Your task to perform on an android device: turn off notifications in google photos Image 0: 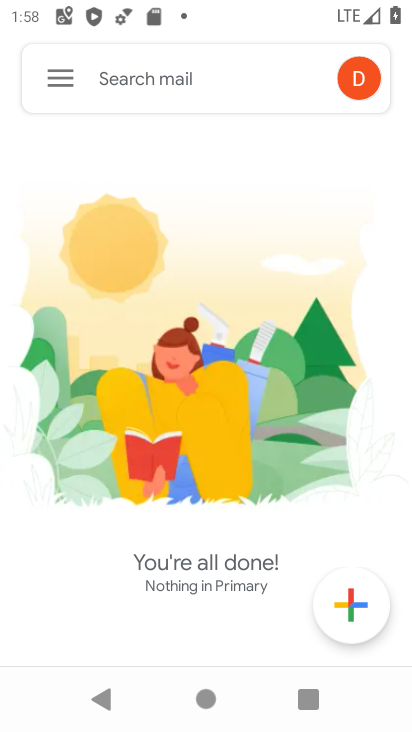
Step 0: press back button
Your task to perform on an android device: turn off notifications in google photos Image 1: 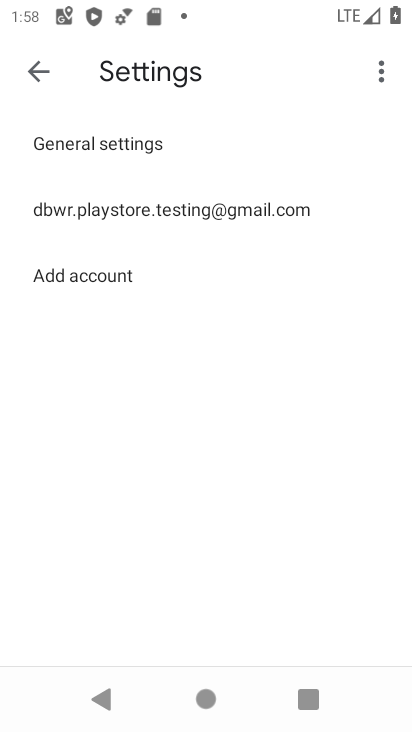
Step 1: press home button
Your task to perform on an android device: turn off notifications in google photos Image 2: 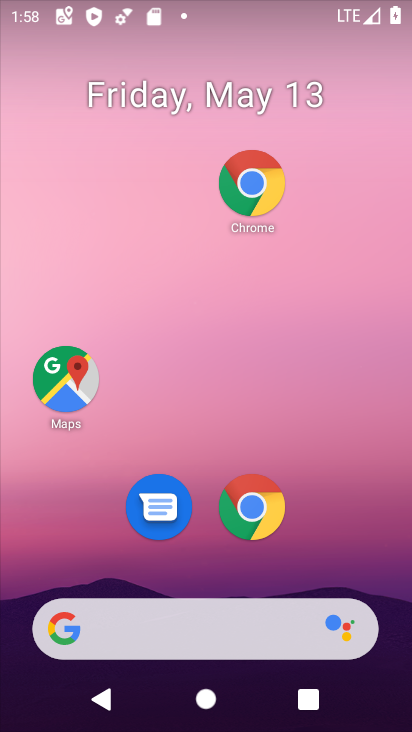
Step 2: drag from (342, 540) to (193, 26)
Your task to perform on an android device: turn off notifications in google photos Image 3: 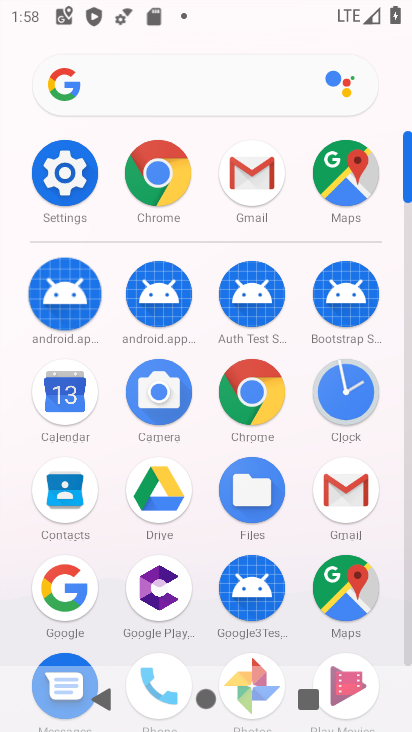
Step 3: click (193, 26)
Your task to perform on an android device: turn off notifications in google photos Image 4: 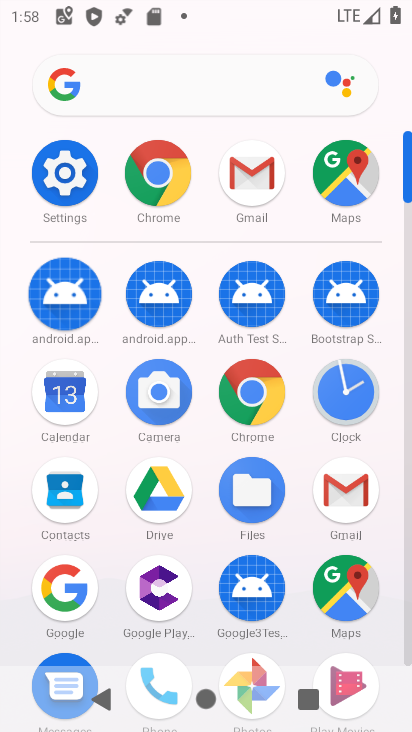
Step 4: drag from (295, 628) to (270, 282)
Your task to perform on an android device: turn off notifications in google photos Image 5: 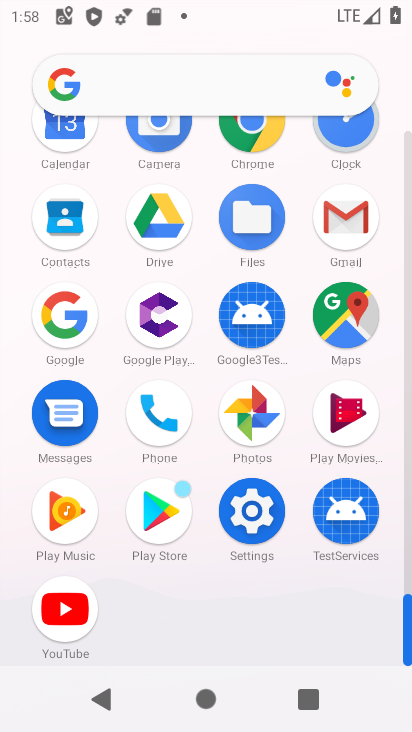
Step 5: click (256, 411)
Your task to perform on an android device: turn off notifications in google photos Image 6: 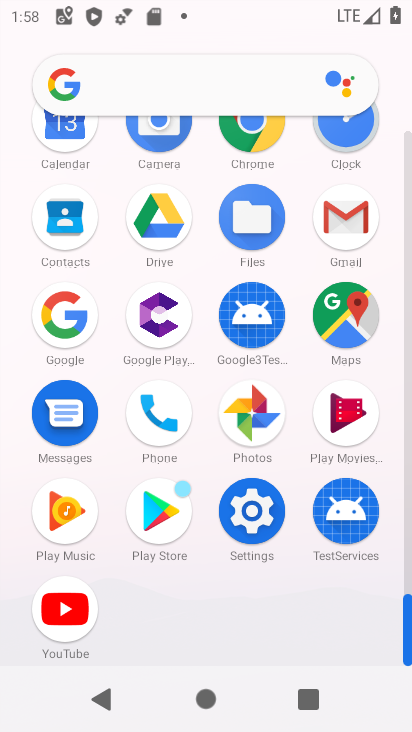
Step 6: click (252, 412)
Your task to perform on an android device: turn off notifications in google photos Image 7: 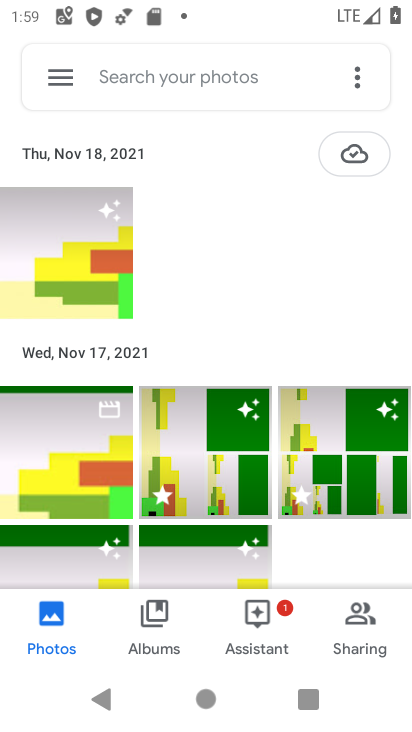
Step 7: click (64, 91)
Your task to perform on an android device: turn off notifications in google photos Image 8: 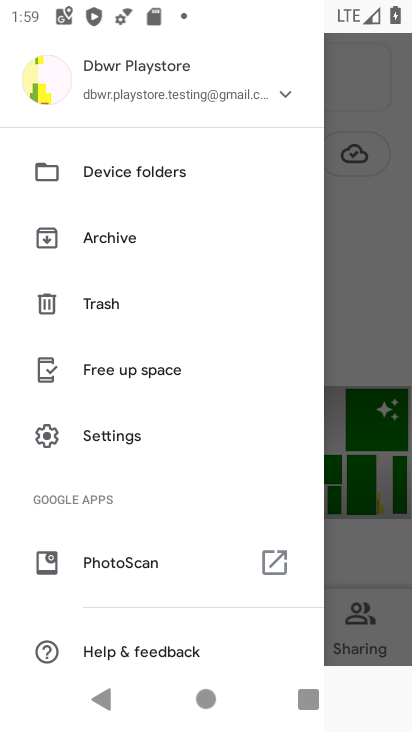
Step 8: click (108, 440)
Your task to perform on an android device: turn off notifications in google photos Image 9: 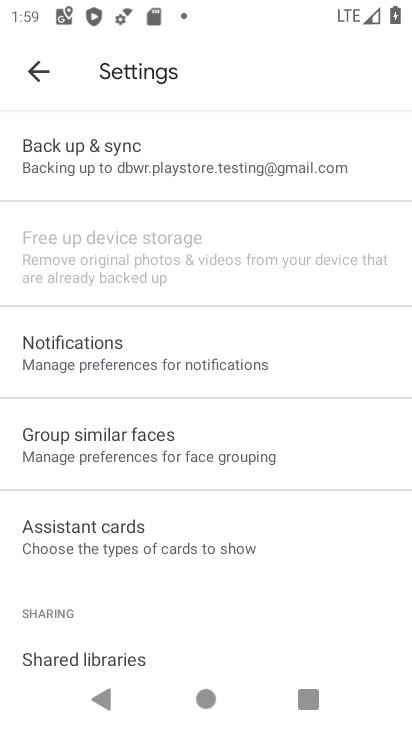
Step 9: click (67, 360)
Your task to perform on an android device: turn off notifications in google photos Image 10: 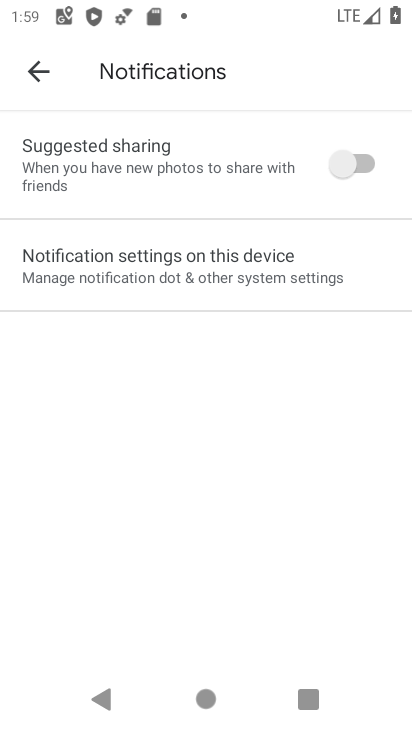
Step 10: click (298, 278)
Your task to perform on an android device: turn off notifications in google photos Image 11: 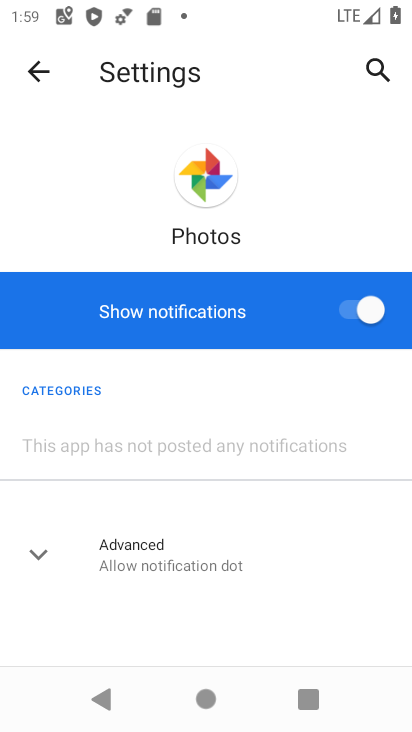
Step 11: click (363, 309)
Your task to perform on an android device: turn off notifications in google photos Image 12: 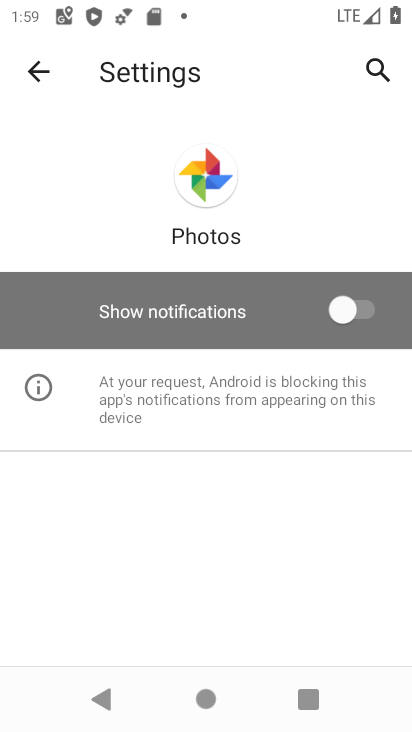
Step 12: task complete